Your task to perform on an android device: check the backup settings in the google photos Image 0: 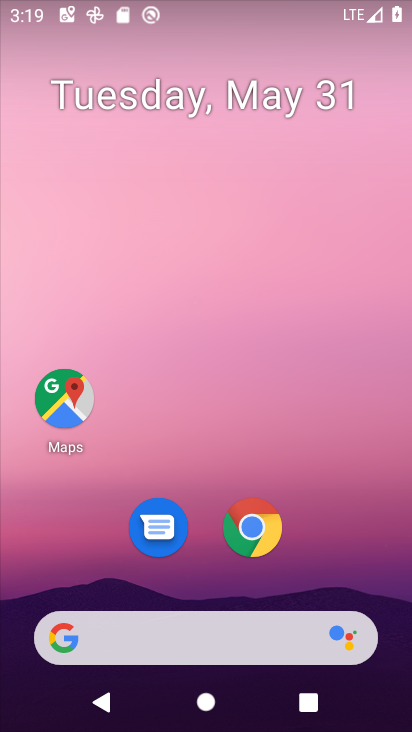
Step 0: drag from (363, 500) to (362, 13)
Your task to perform on an android device: check the backup settings in the google photos Image 1: 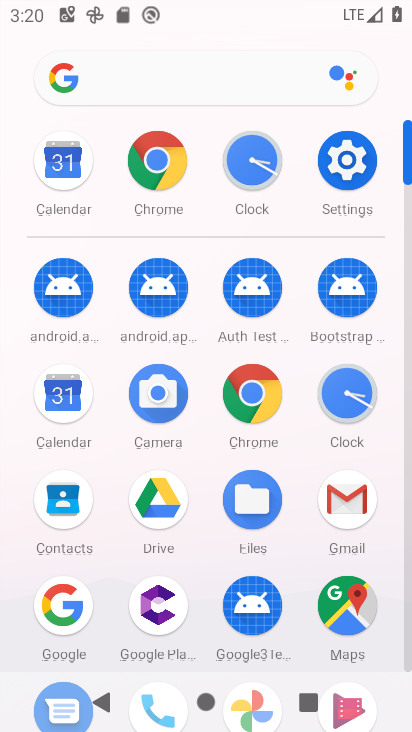
Step 1: drag from (385, 450) to (408, 160)
Your task to perform on an android device: check the backup settings in the google photos Image 2: 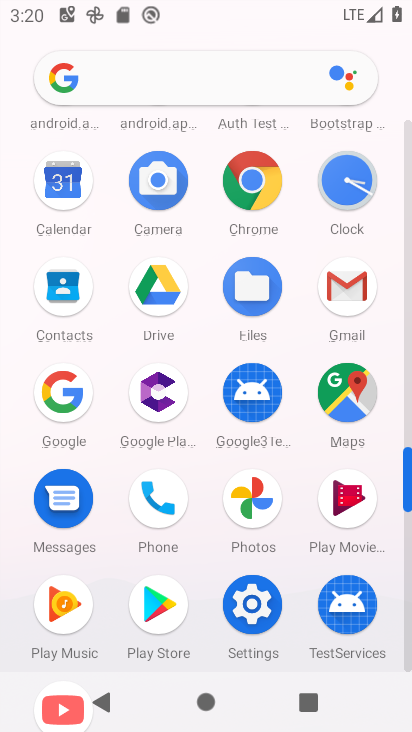
Step 2: click (248, 505)
Your task to perform on an android device: check the backup settings in the google photos Image 3: 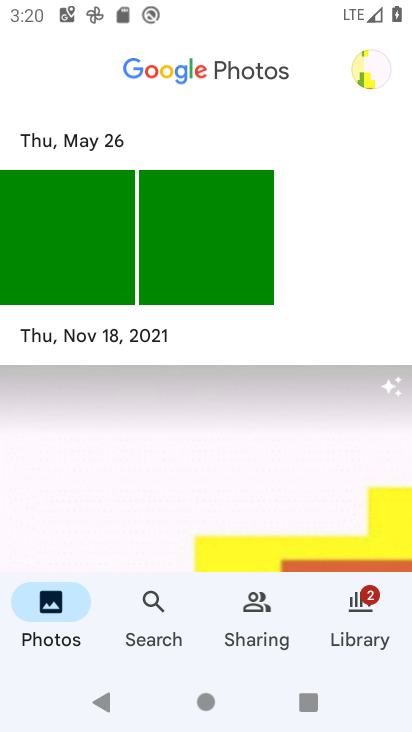
Step 3: click (365, 74)
Your task to perform on an android device: check the backup settings in the google photos Image 4: 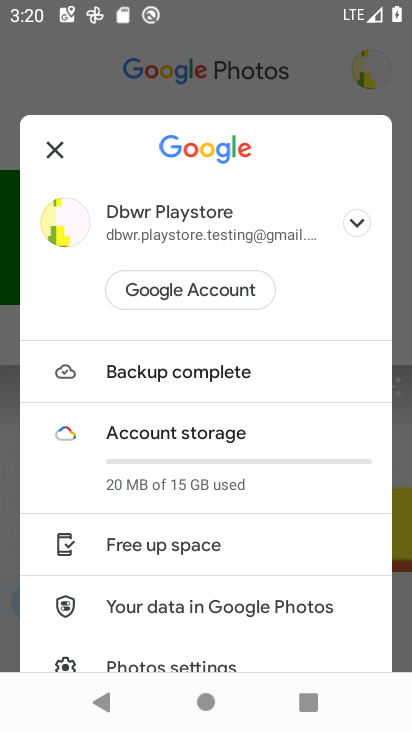
Step 4: drag from (254, 574) to (276, 293)
Your task to perform on an android device: check the backup settings in the google photos Image 5: 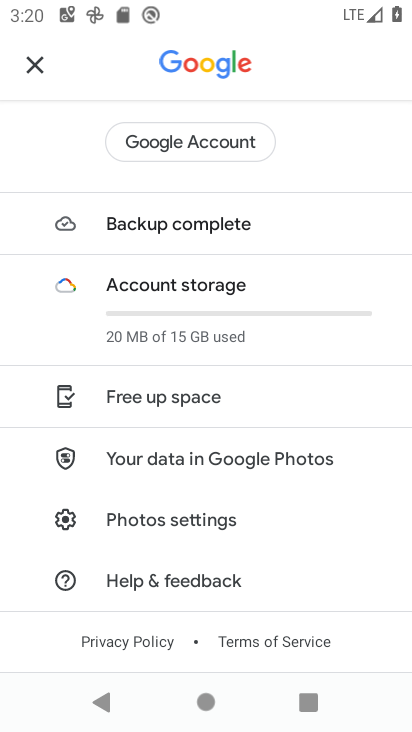
Step 5: drag from (223, 478) to (231, 356)
Your task to perform on an android device: check the backup settings in the google photos Image 6: 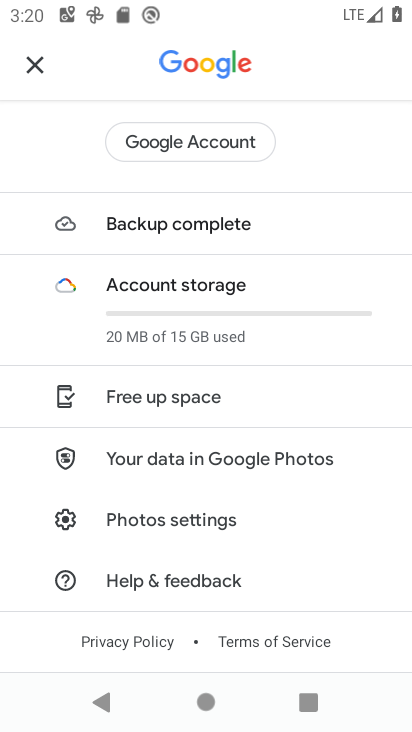
Step 6: click (162, 524)
Your task to perform on an android device: check the backup settings in the google photos Image 7: 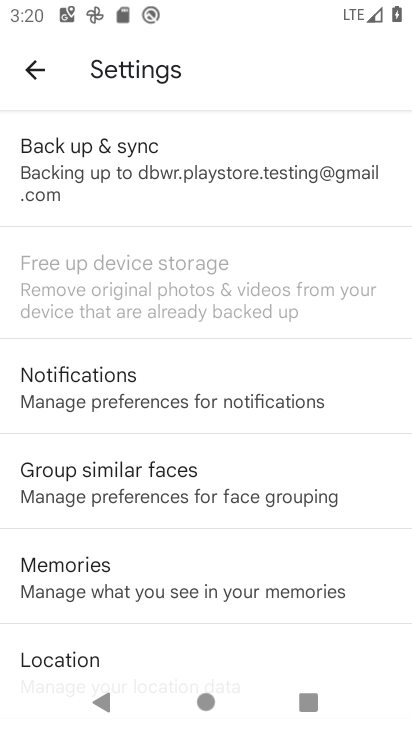
Step 7: click (59, 171)
Your task to perform on an android device: check the backup settings in the google photos Image 8: 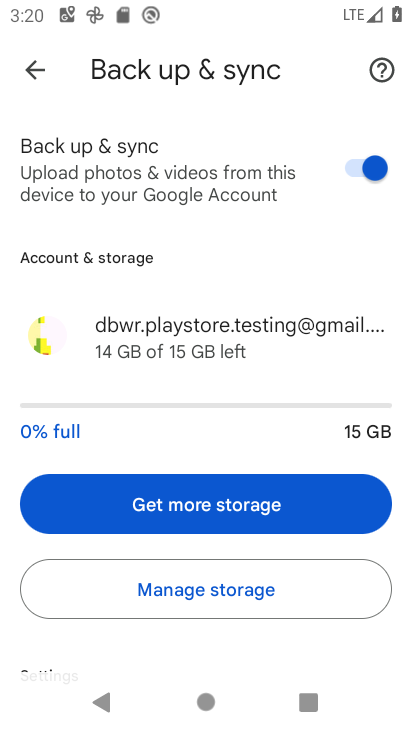
Step 8: task complete